Your task to perform on an android device: Open my contact list Image 0: 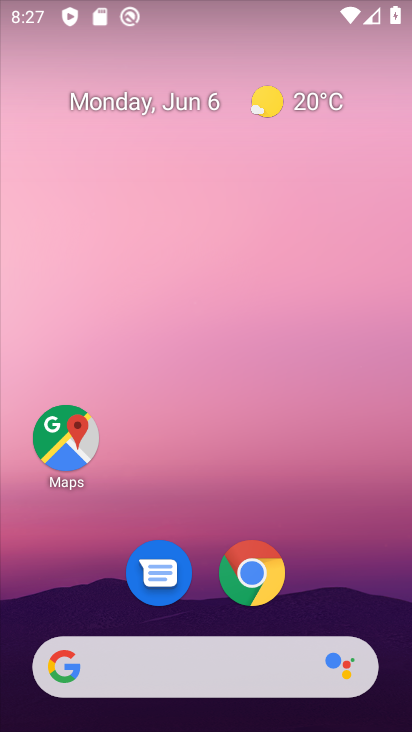
Step 0: drag from (180, 587) to (252, 103)
Your task to perform on an android device: Open my contact list Image 1: 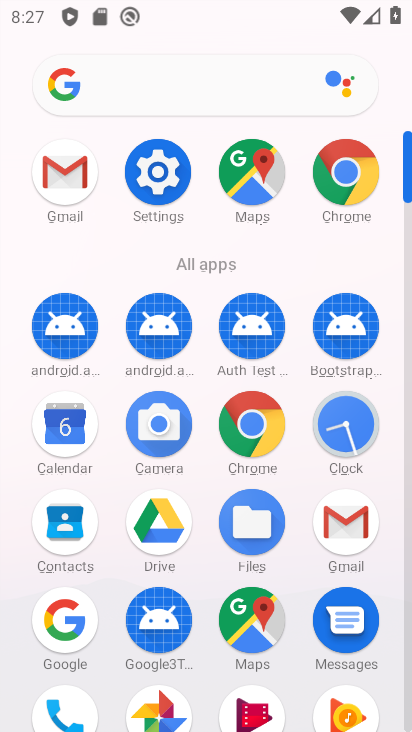
Step 1: click (85, 534)
Your task to perform on an android device: Open my contact list Image 2: 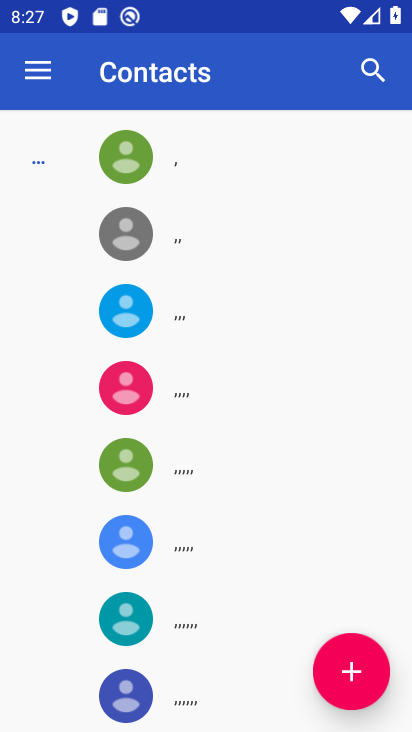
Step 2: task complete